Your task to perform on an android device: Open Maps and search for coffee Image 0: 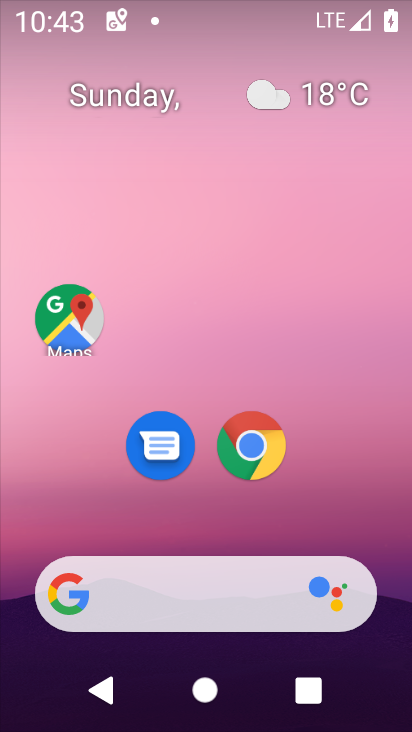
Step 0: click (64, 327)
Your task to perform on an android device: Open Maps and search for coffee Image 1: 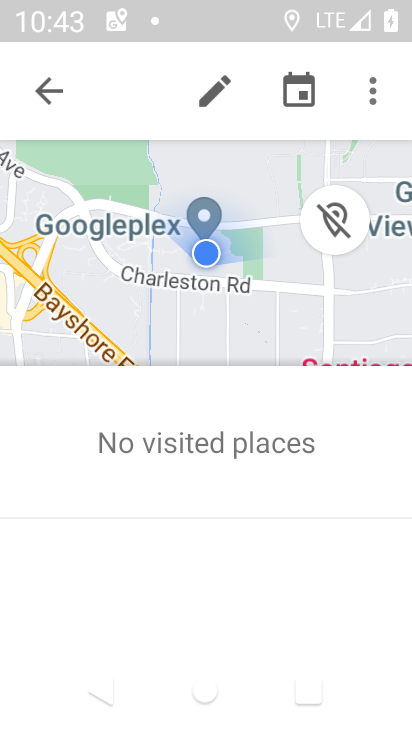
Step 1: click (49, 95)
Your task to perform on an android device: Open Maps and search for coffee Image 2: 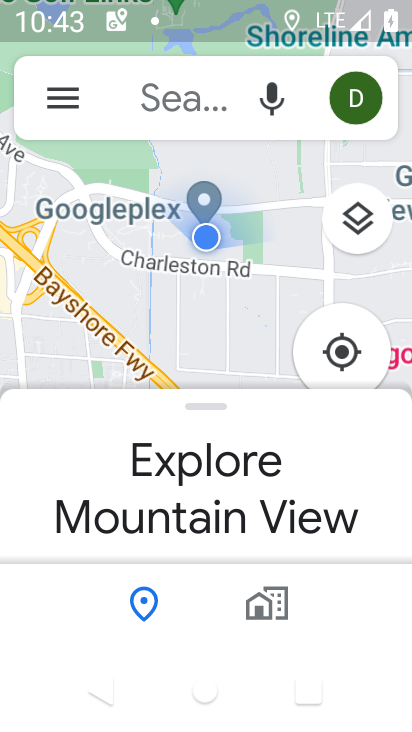
Step 2: click (193, 92)
Your task to perform on an android device: Open Maps and search for coffee Image 3: 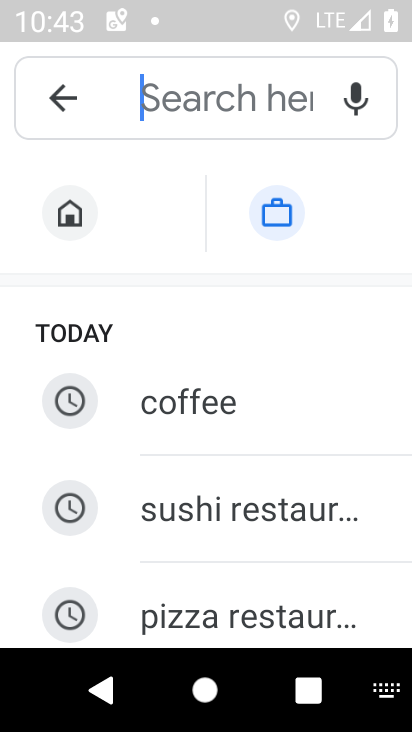
Step 3: click (229, 419)
Your task to perform on an android device: Open Maps and search for coffee Image 4: 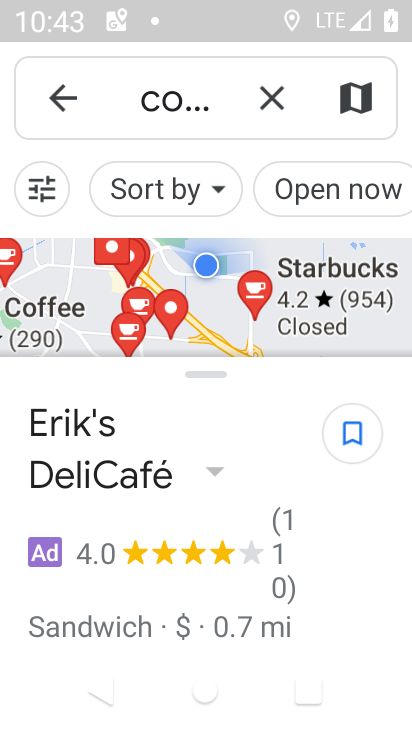
Step 4: task complete